Your task to perform on an android device: Open ESPN.com Image 0: 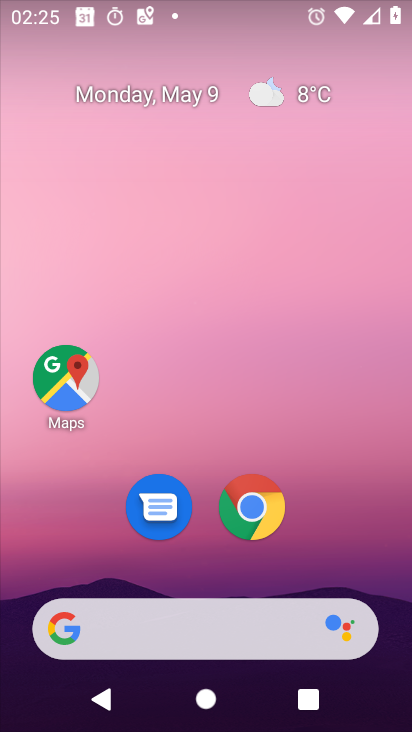
Step 0: click (253, 508)
Your task to perform on an android device: Open ESPN.com Image 1: 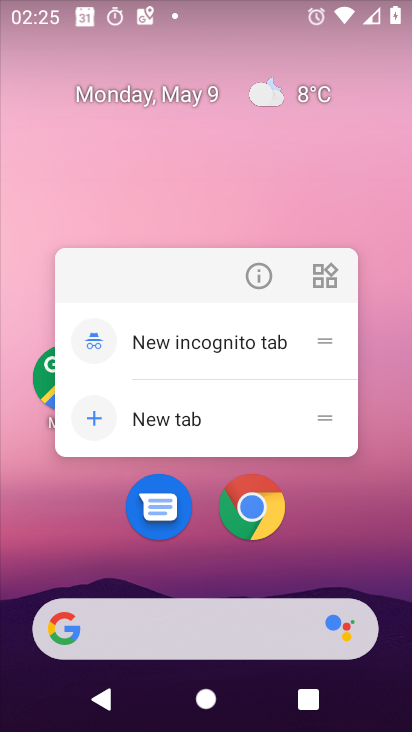
Step 1: click (253, 508)
Your task to perform on an android device: Open ESPN.com Image 2: 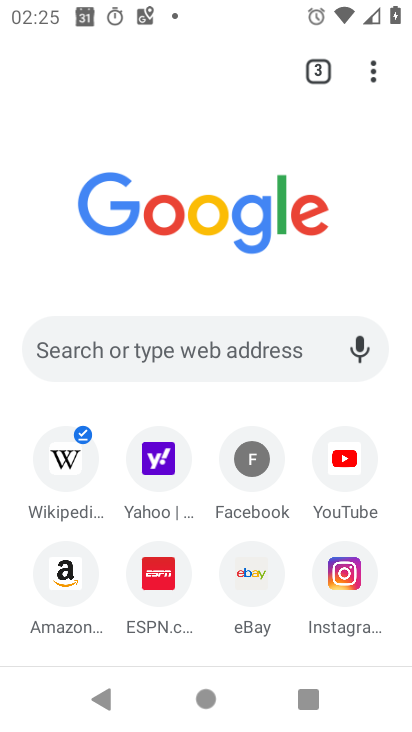
Step 2: click (158, 571)
Your task to perform on an android device: Open ESPN.com Image 3: 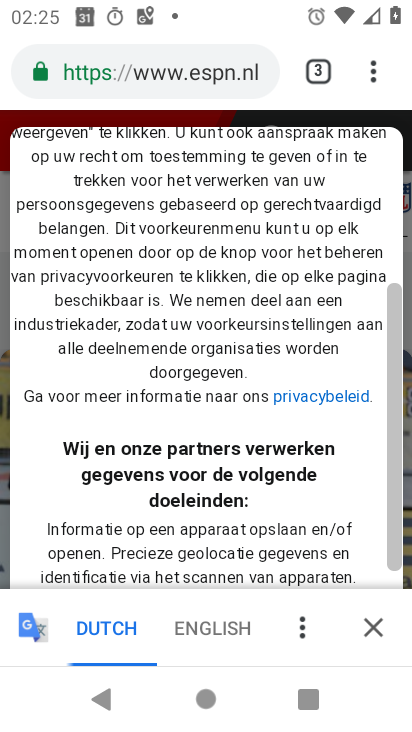
Step 3: drag from (305, 450) to (306, 141)
Your task to perform on an android device: Open ESPN.com Image 4: 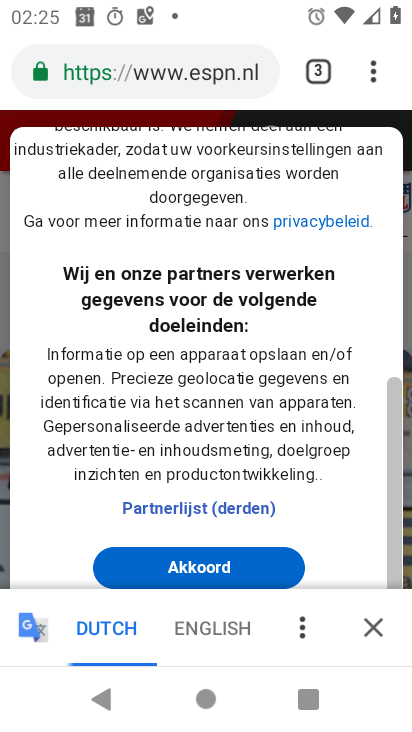
Step 4: click (202, 564)
Your task to perform on an android device: Open ESPN.com Image 5: 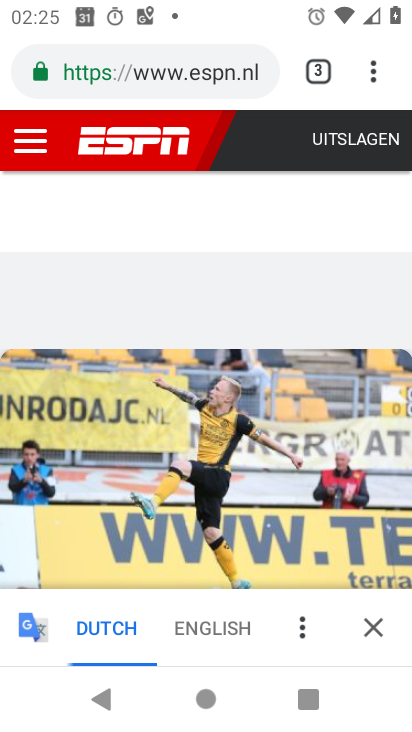
Step 5: task complete